Your task to perform on an android device: Go to battery settings Image 0: 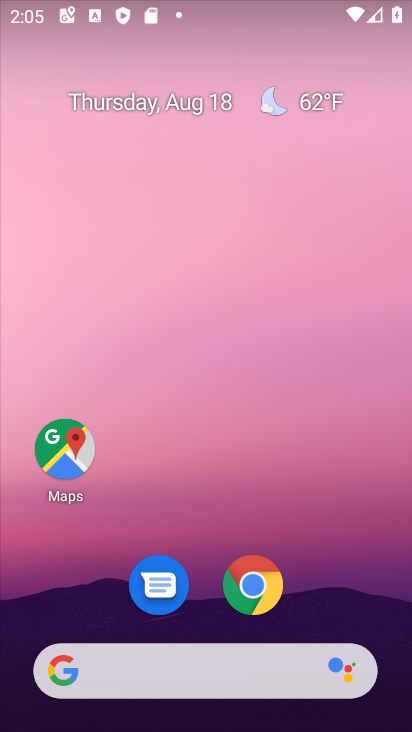
Step 0: drag from (310, 494) to (321, 2)
Your task to perform on an android device: Go to battery settings Image 1: 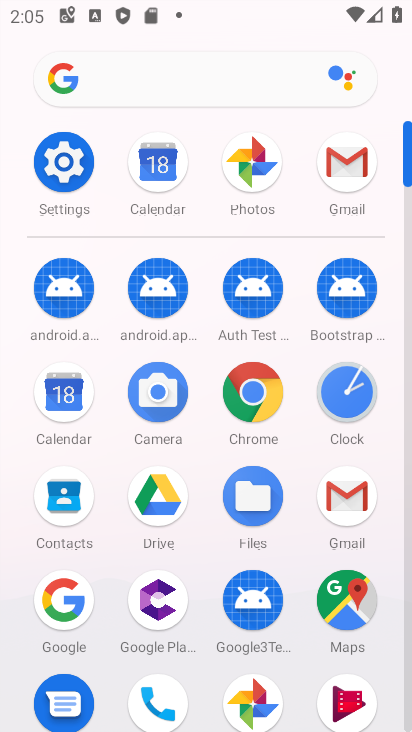
Step 1: click (56, 158)
Your task to perform on an android device: Go to battery settings Image 2: 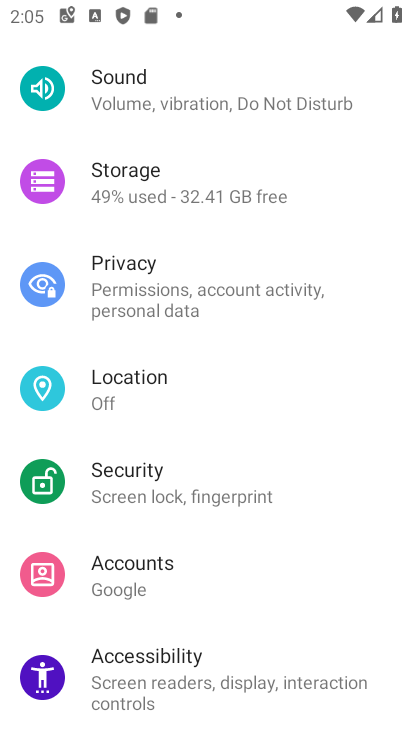
Step 2: drag from (243, 153) to (287, 594)
Your task to perform on an android device: Go to battery settings Image 3: 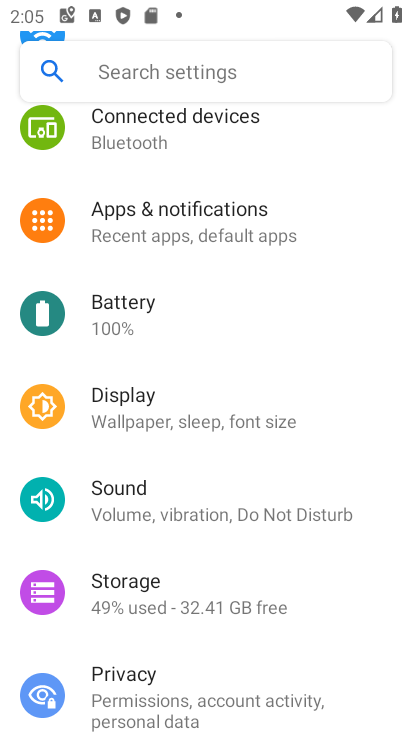
Step 3: click (167, 323)
Your task to perform on an android device: Go to battery settings Image 4: 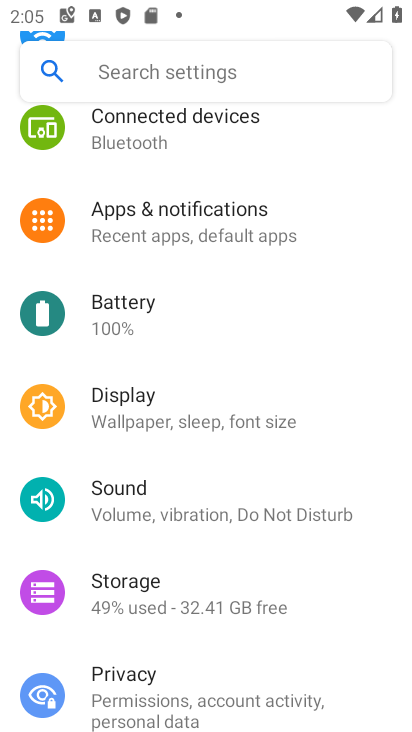
Step 4: click (167, 323)
Your task to perform on an android device: Go to battery settings Image 5: 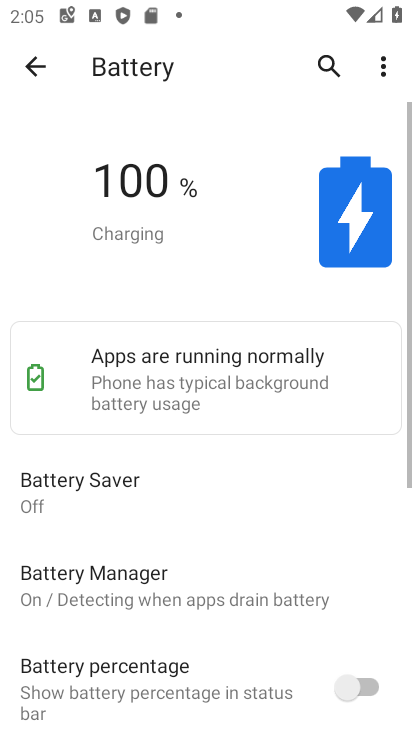
Step 5: task complete